Your task to perform on an android device: Go to notification settings Image 0: 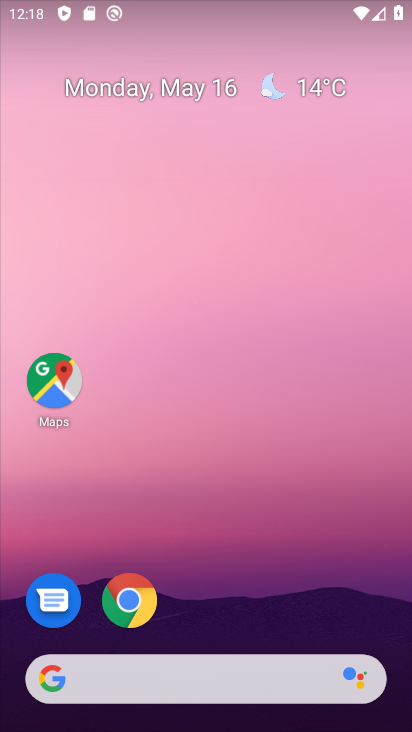
Step 0: drag from (223, 613) to (280, 143)
Your task to perform on an android device: Go to notification settings Image 1: 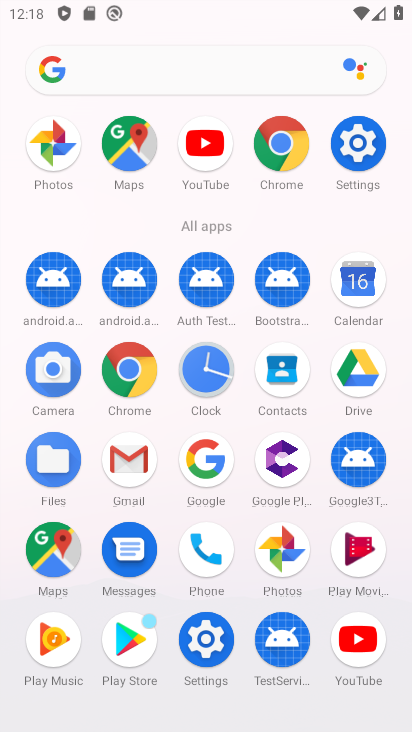
Step 1: click (358, 154)
Your task to perform on an android device: Go to notification settings Image 2: 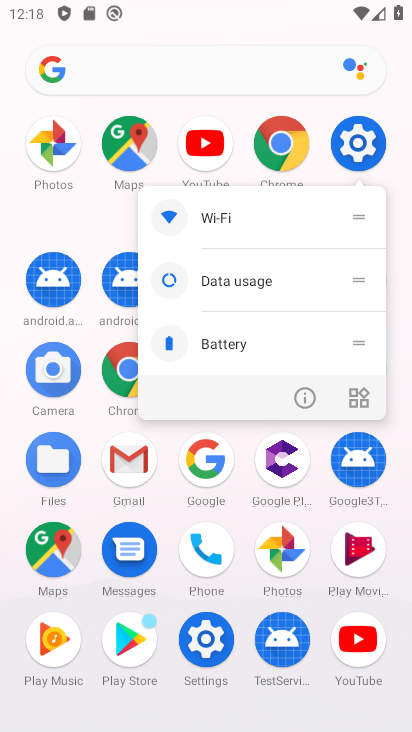
Step 2: click (310, 398)
Your task to perform on an android device: Go to notification settings Image 3: 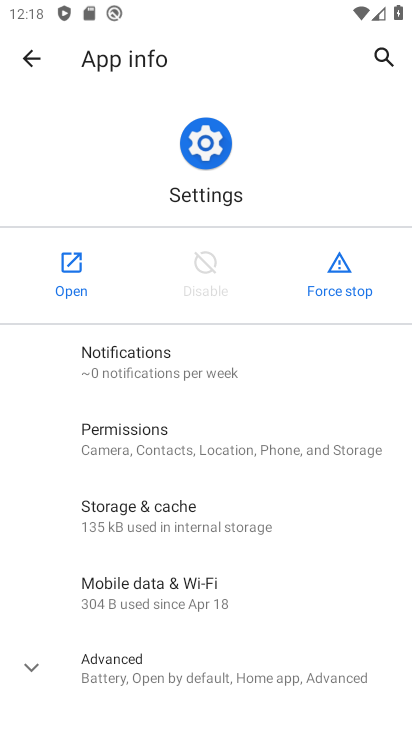
Step 3: click (163, 376)
Your task to perform on an android device: Go to notification settings Image 4: 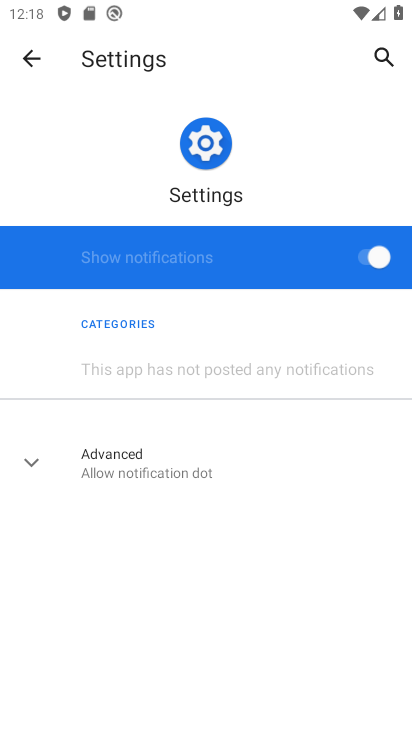
Step 4: task complete